Your task to perform on an android device: Open Amazon Image 0: 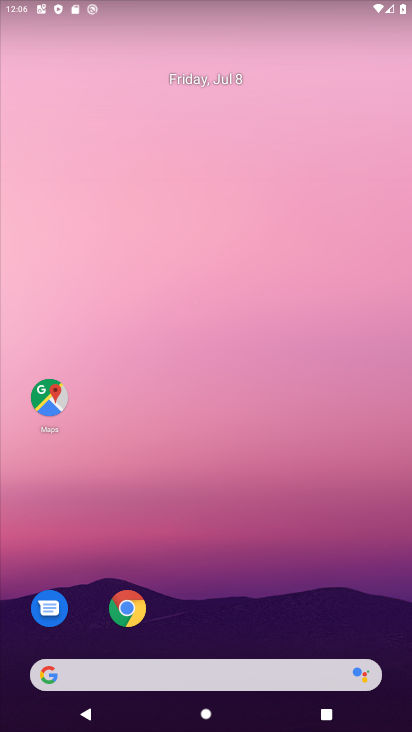
Step 0: click (94, 668)
Your task to perform on an android device: Open Amazon Image 1: 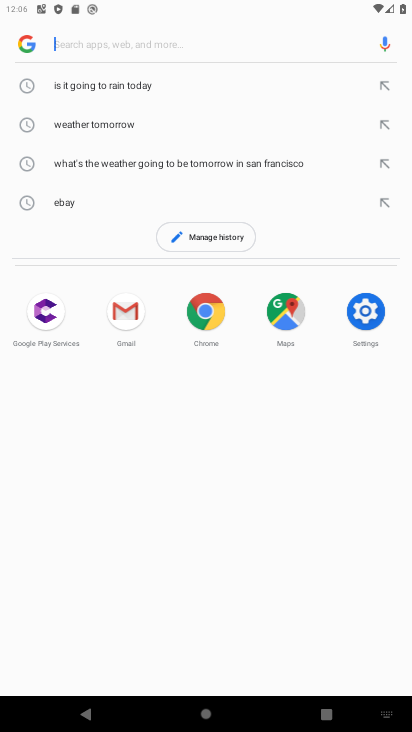
Step 1: task complete